Your task to perform on an android device: turn on sleep mode Image 0: 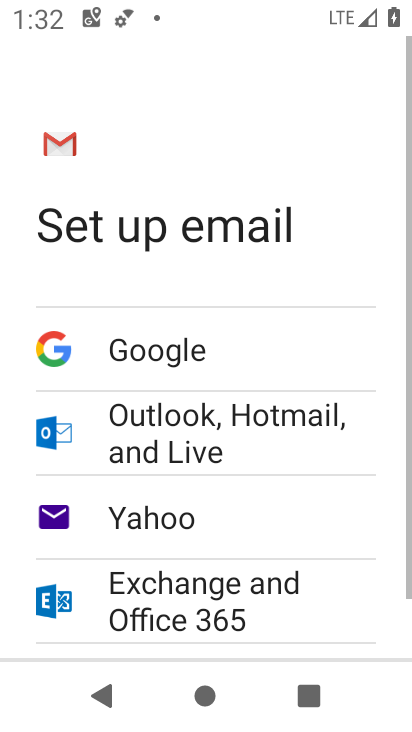
Step 0: press home button
Your task to perform on an android device: turn on sleep mode Image 1: 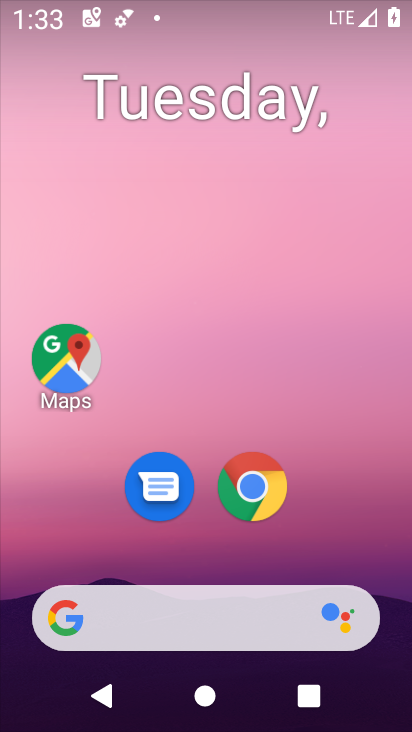
Step 1: drag from (372, 530) to (373, 92)
Your task to perform on an android device: turn on sleep mode Image 2: 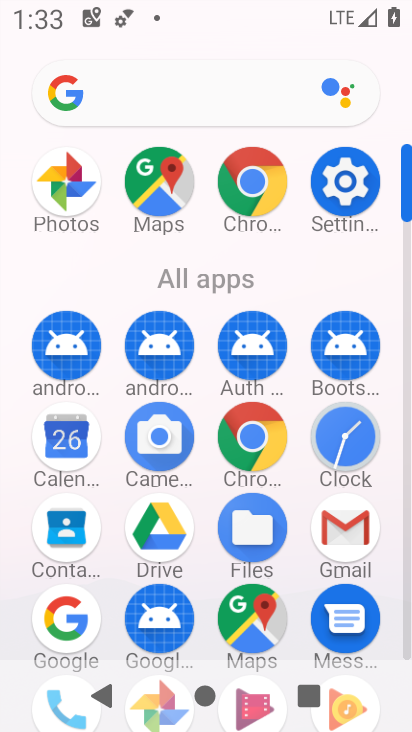
Step 2: click (347, 194)
Your task to perform on an android device: turn on sleep mode Image 3: 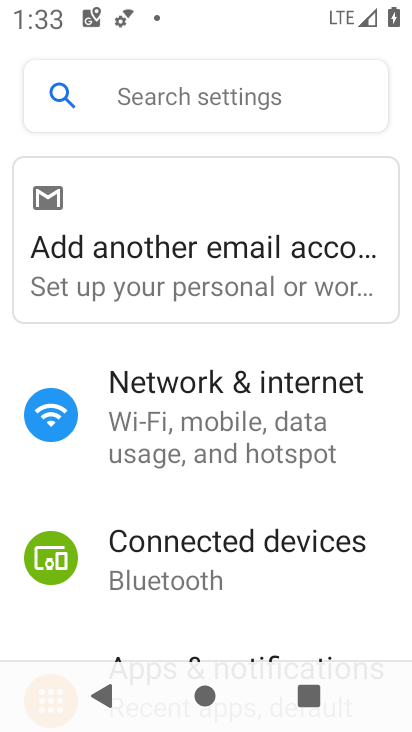
Step 3: drag from (354, 474) to (359, 368)
Your task to perform on an android device: turn on sleep mode Image 4: 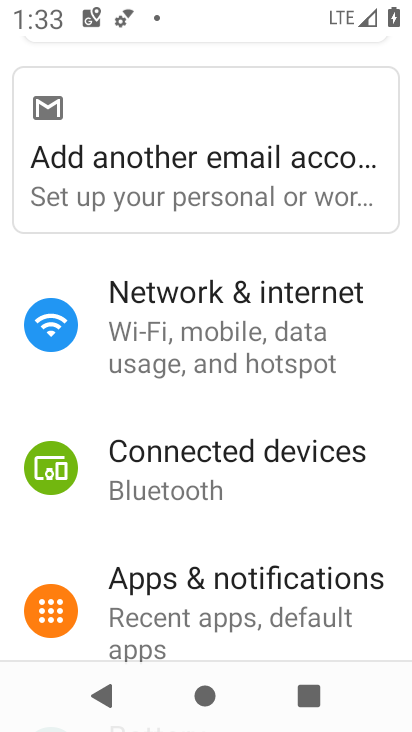
Step 4: drag from (355, 508) to (359, 389)
Your task to perform on an android device: turn on sleep mode Image 5: 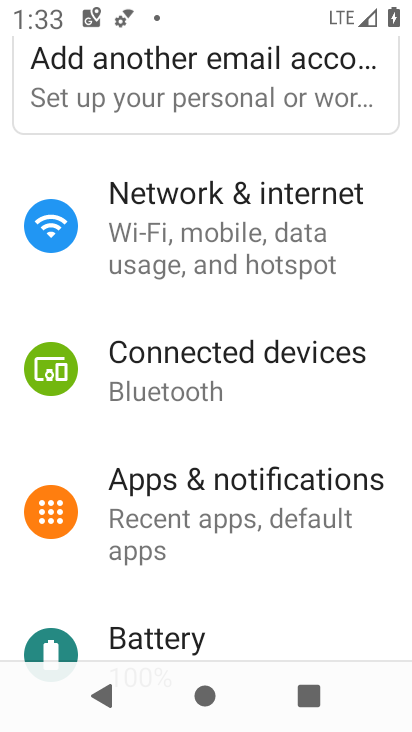
Step 5: drag from (371, 530) to (372, 437)
Your task to perform on an android device: turn on sleep mode Image 6: 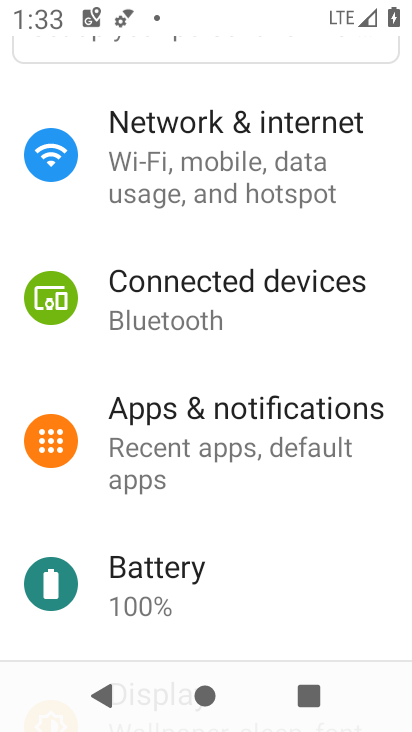
Step 6: drag from (361, 537) to (356, 422)
Your task to perform on an android device: turn on sleep mode Image 7: 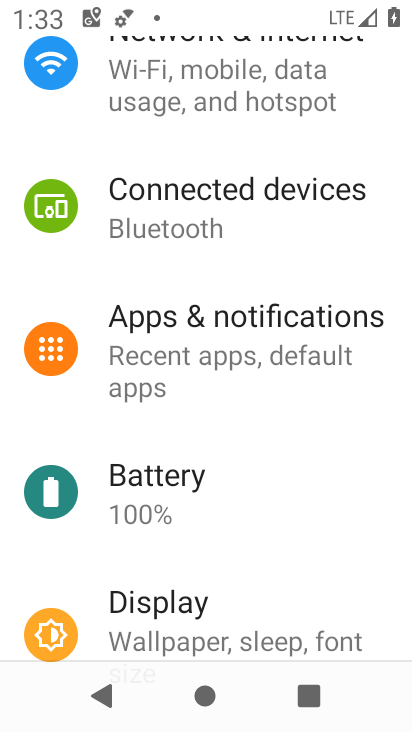
Step 7: drag from (336, 534) to (330, 425)
Your task to perform on an android device: turn on sleep mode Image 8: 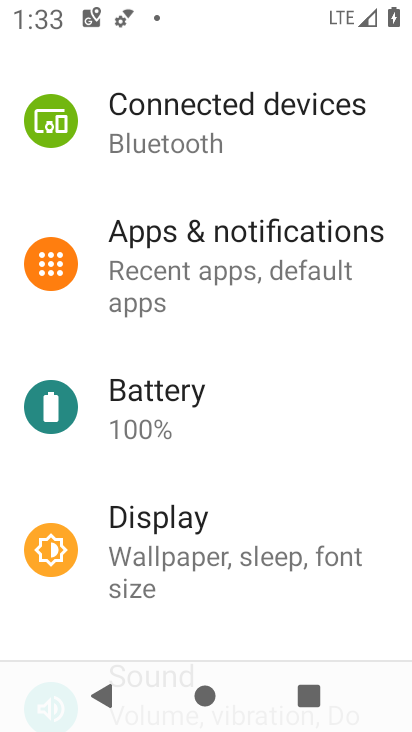
Step 8: drag from (337, 569) to (338, 436)
Your task to perform on an android device: turn on sleep mode Image 9: 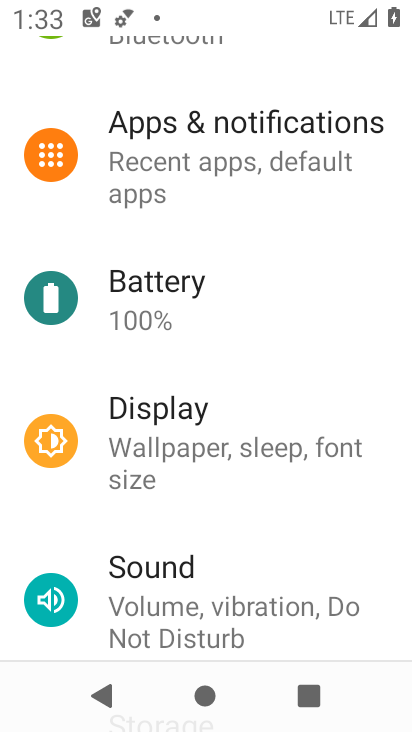
Step 9: drag from (320, 543) to (317, 390)
Your task to perform on an android device: turn on sleep mode Image 10: 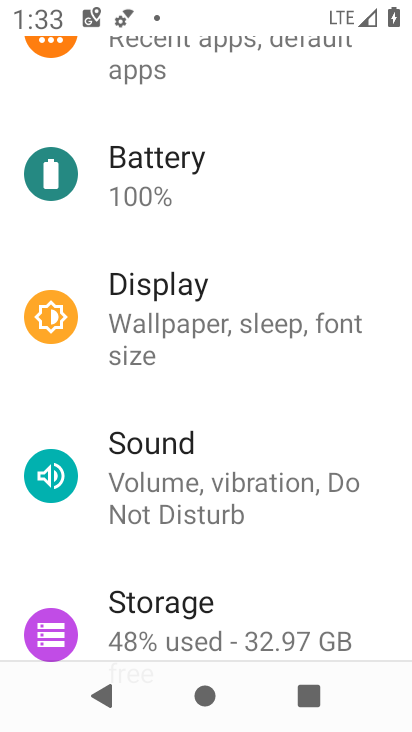
Step 10: click (298, 332)
Your task to perform on an android device: turn on sleep mode Image 11: 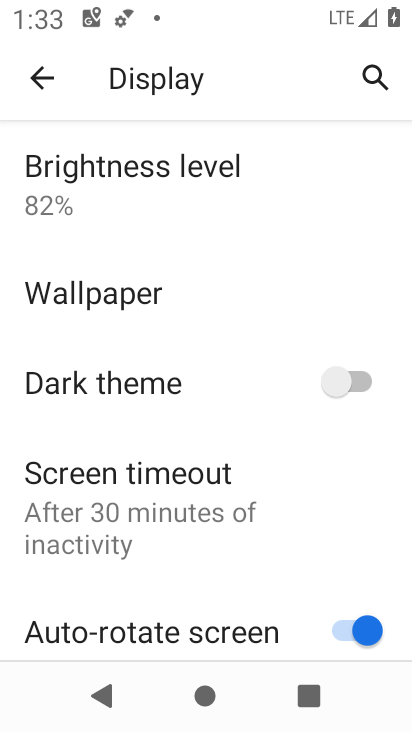
Step 11: drag from (262, 493) to (260, 393)
Your task to perform on an android device: turn on sleep mode Image 12: 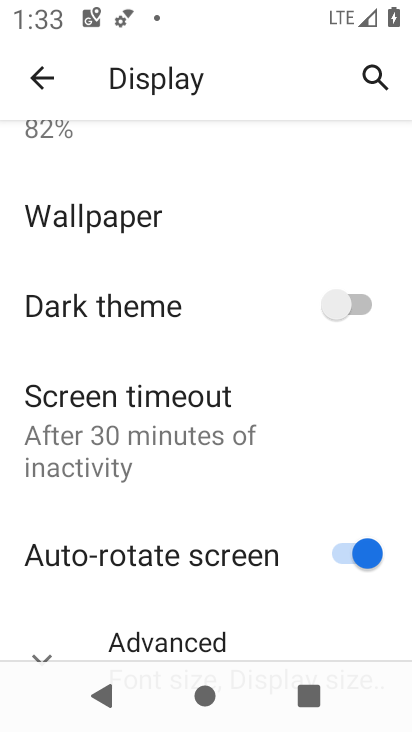
Step 12: drag from (260, 556) to (265, 415)
Your task to perform on an android device: turn on sleep mode Image 13: 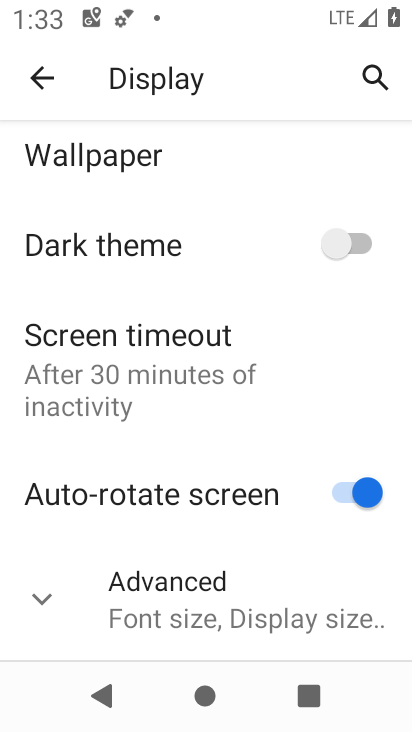
Step 13: click (259, 609)
Your task to perform on an android device: turn on sleep mode Image 14: 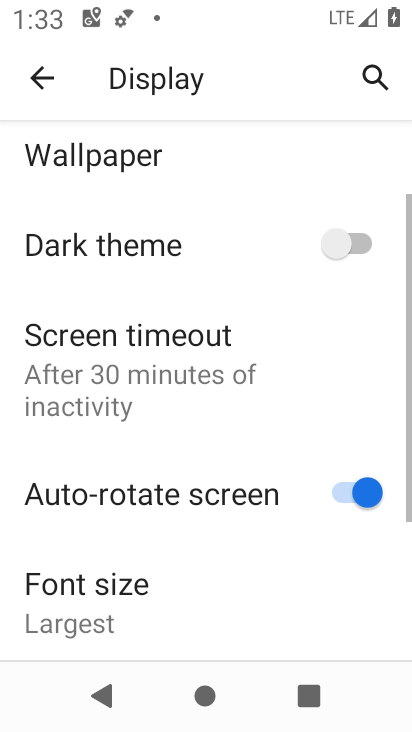
Step 14: task complete